Your task to perform on an android device: refresh tabs in the chrome app Image 0: 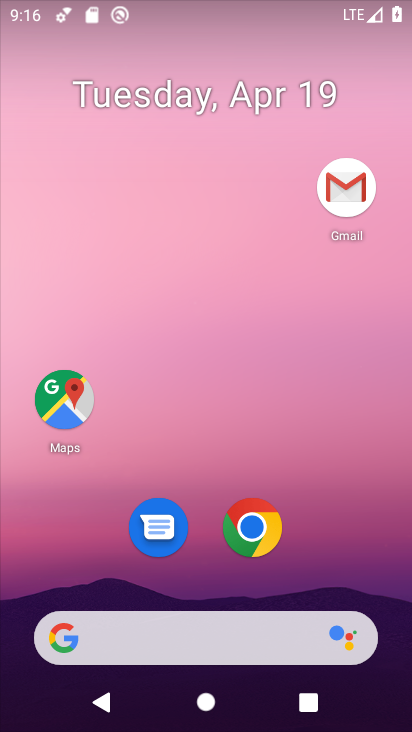
Step 0: drag from (383, 551) to (395, 134)
Your task to perform on an android device: refresh tabs in the chrome app Image 1: 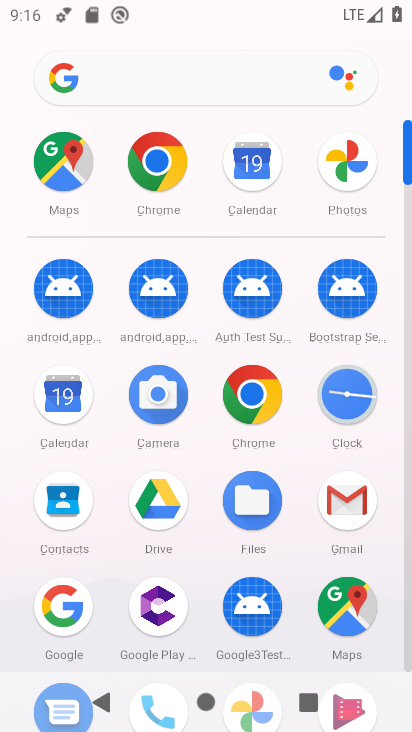
Step 1: drag from (377, 537) to (388, 305)
Your task to perform on an android device: refresh tabs in the chrome app Image 2: 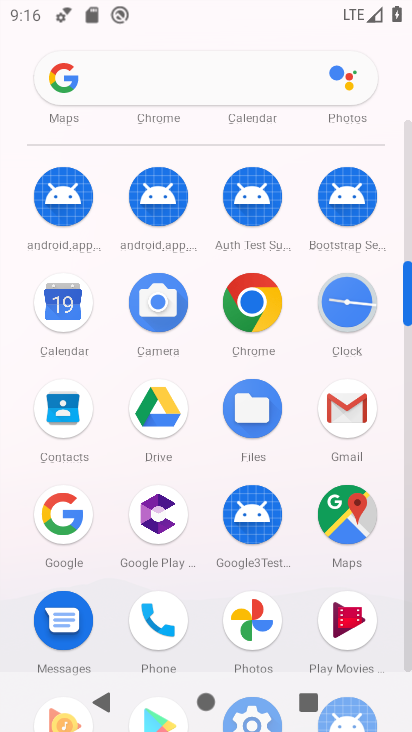
Step 2: click (245, 307)
Your task to perform on an android device: refresh tabs in the chrome app Image 3: 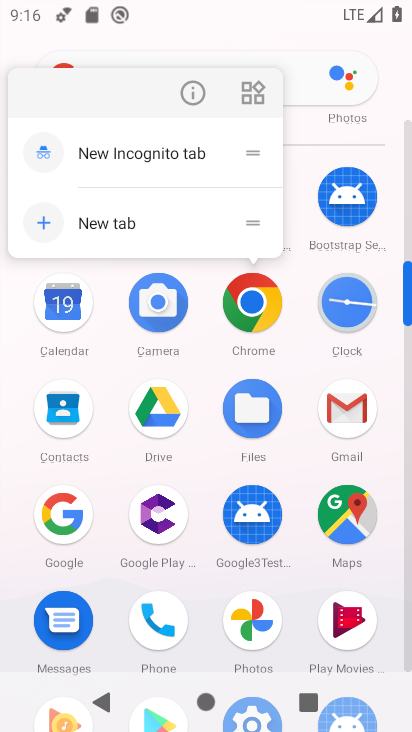
Step 3: click (249, 318)
Your task to perform on an android device: refresh tabs in the chrome app Image 4: 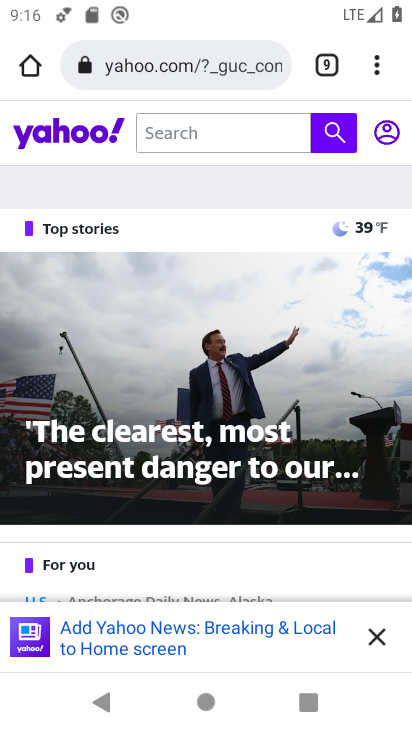
Step 4: click (378, 97)
Your task to perform on an android device: refresh tabs in the chrome app Image 5: 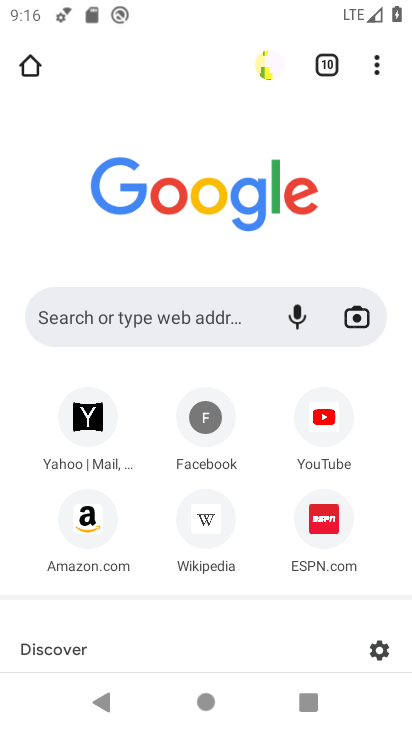
Step 5: click (401, 79)
Your task to perform on an android device: refresh tabs in the chrome app Image 6: 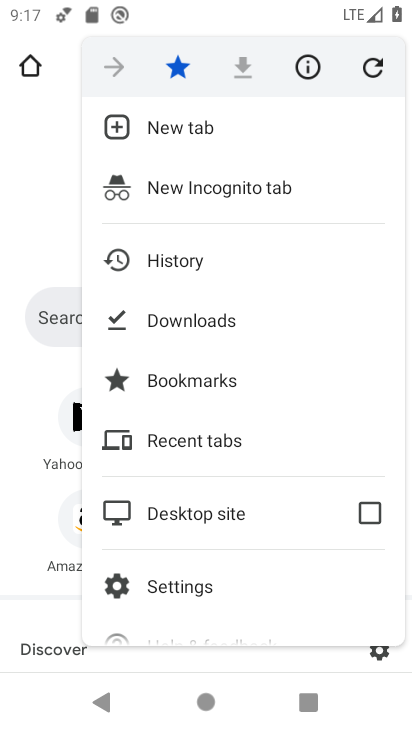
Step 6: click (365, 62)
Your task to perform on an android device: refresh tabs in the chrome app Image 7: 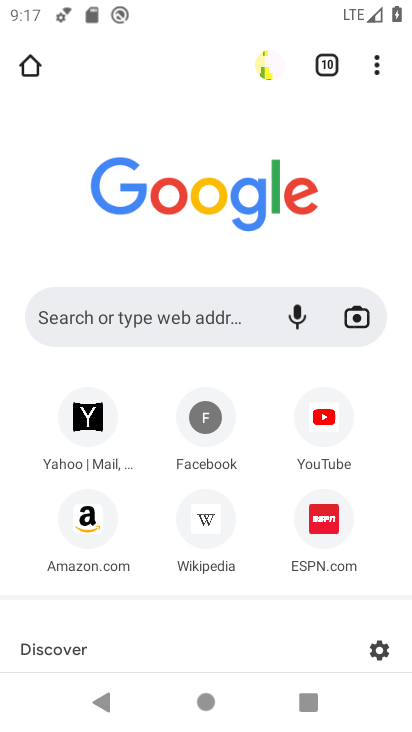
Step 7: task complete